Your task to perform on an android device: search for starred emails in the gmail app Image 0: 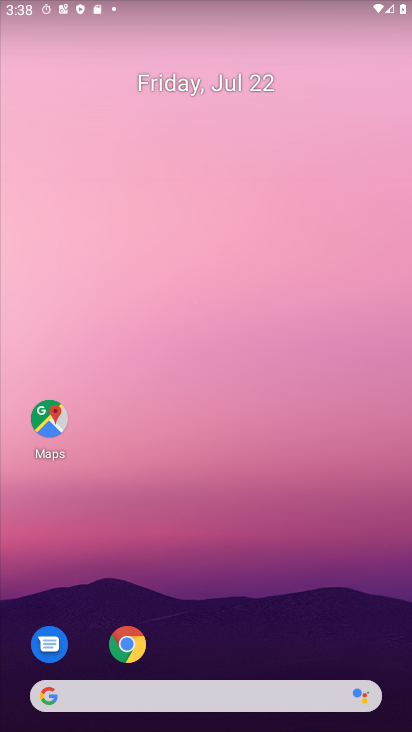
Step 0: press home button
Your task to perform on an android device: search for starred emails in the gmail app Image 1: 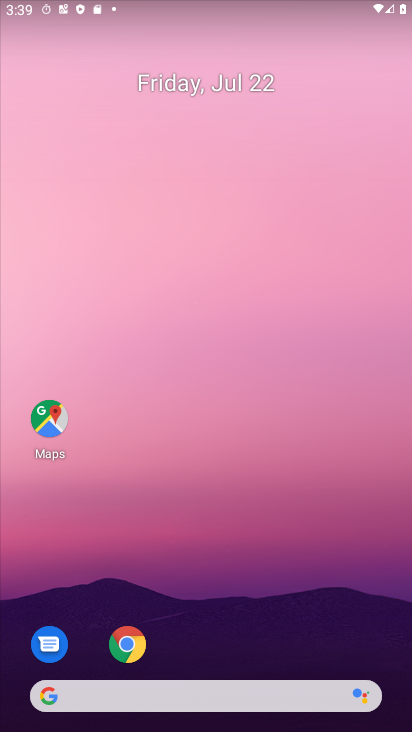
Step 1: drag from (271, 537) to (248, 77)
Your task to perform on an android device: search for starred emails in the gmail app Image 2: 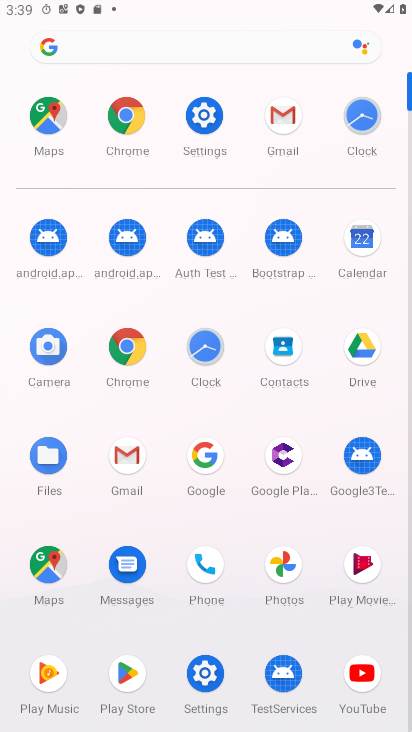
Step 2: click (277, 115)
Your task to perform on an android device: search for starred emails in the gmail app Image 3: 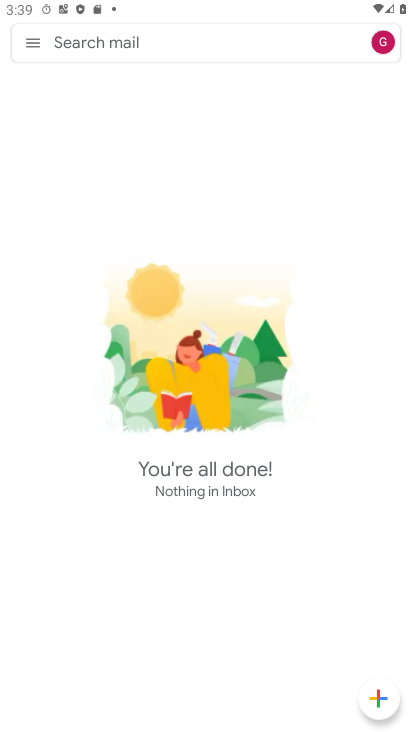
Step 3: click (29, 42)
Your task to perform on an android device: search for starred emails in the gmail app Image 4: 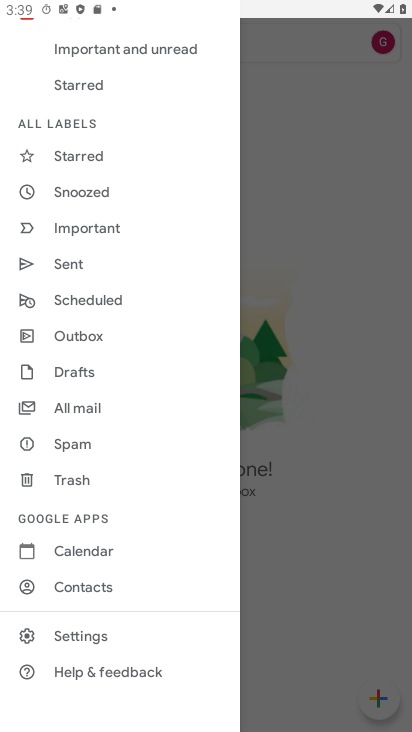
Step 4: click (66, 156)
Your task to perform on an android device: search for starred emails in the gmail app Image 5: 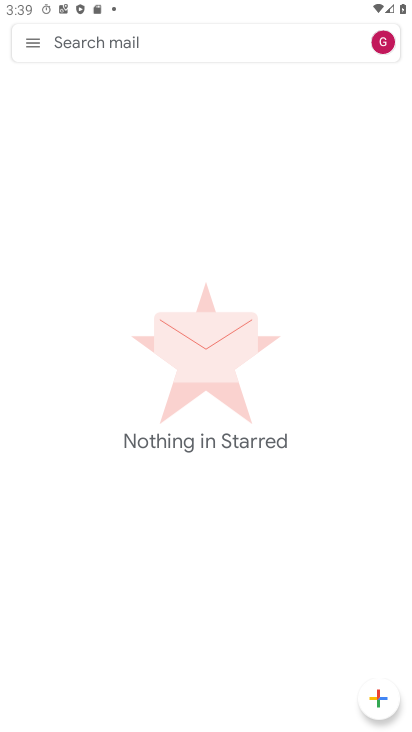
Step 5: task complete